Your task to perform on an android device: Open Google Maps and go to "Timeline" Image 0: 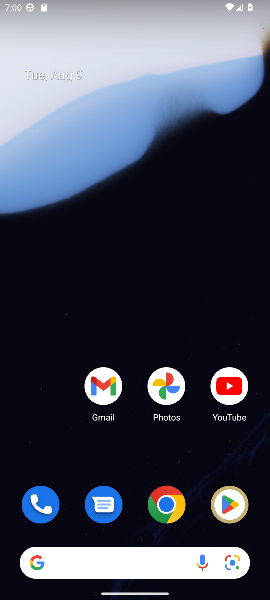
Step 0: press home button
Your task to perform on an android device: Open Google Maps and go to "Timeline" Image 1: 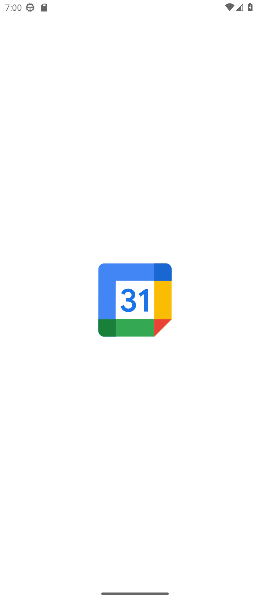
Step 1: press home button
Your task to perform on an android device: Open Google Maps and go to "Timeline" Image 2: 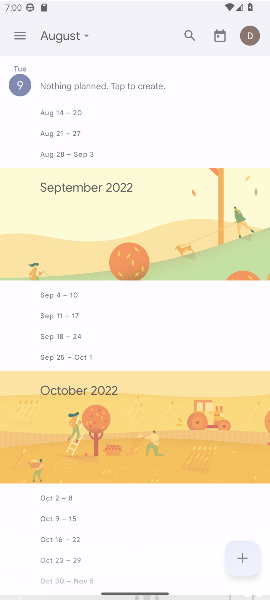
Step 2: press home button
Your task to perform on an android device: Open Google Maps and go to "Timeline" Image 3: 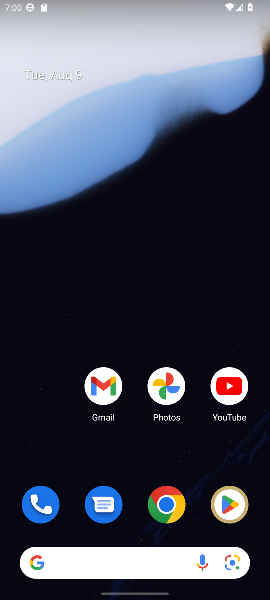
Step 3: press home button
Your task to perform on an android device: Open Google Maps and go to "Timeline" Image 4: 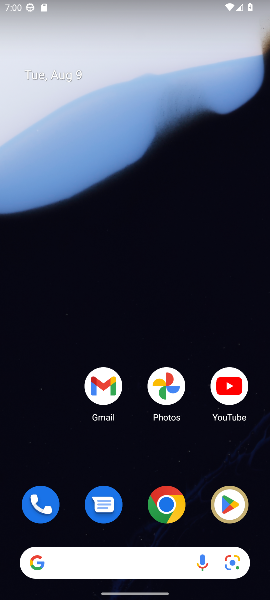
Step 4: press home button
Your task to perform on an android device: Open Google Maps and go to "Timeline" Image 5: 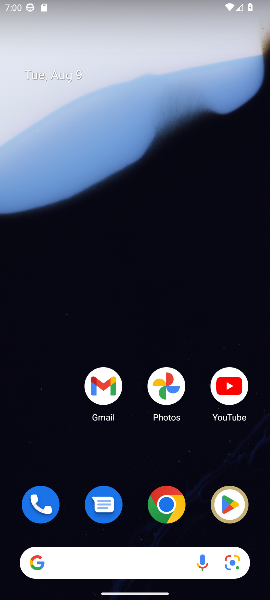
Step 5: drag from (161, 438) to (75, 13)
Your task to perform on an android device: Open Google Maps and go to "Timeline" Image 6: 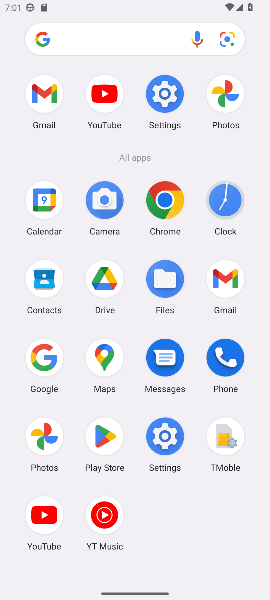
Step 6: click (114, 350)
Your task to perform on an android device: Open Google Maps and go to "Timeline" Image 7: 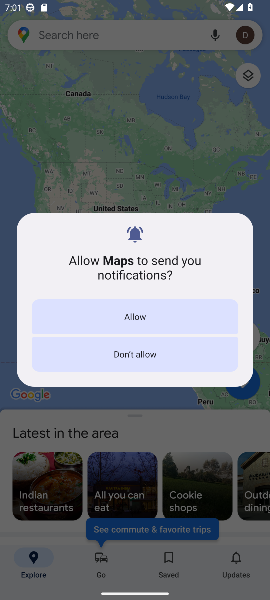
Step 7: click (186, 308)
Your task to perform on an android device: Open Google Maps and go to "Timeline" Image 8: 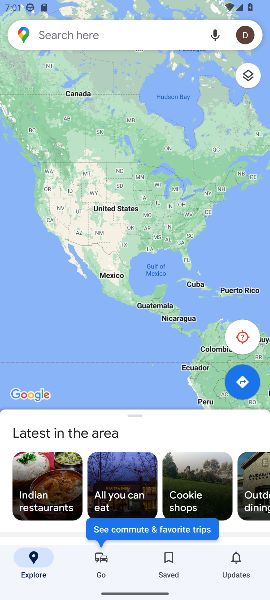
Step 8: click (241, 46)
Your task to perform on an android device: Open Google Maps and go to "Timeline" Image 9: 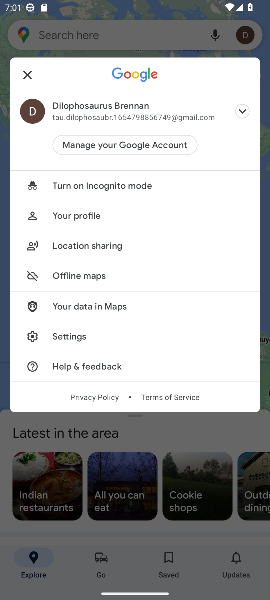
Step 9: click (65, 205)
Your task to perform on an android device: Open Google Maps and go to "Timeline" Image 10: 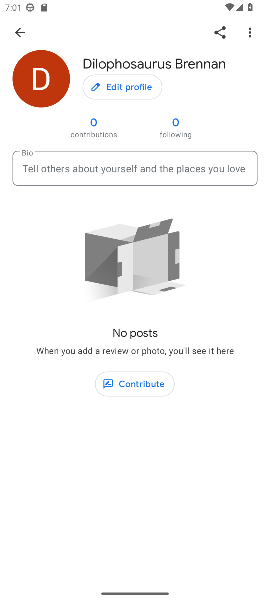
Step 10: press back button
Your task to perform on an android device: Open Google Maps and go to "Timeline" Image 11: 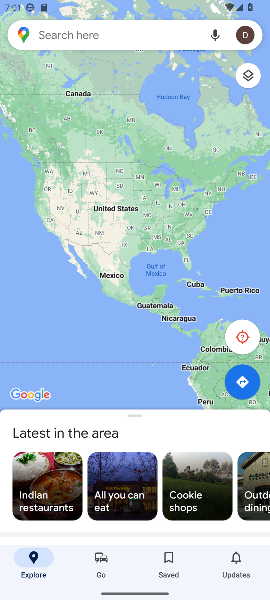
Step 11: click (240, 29)
Your task to perform on an android device: Open Google Maps and go to "Timeline" Image 12: 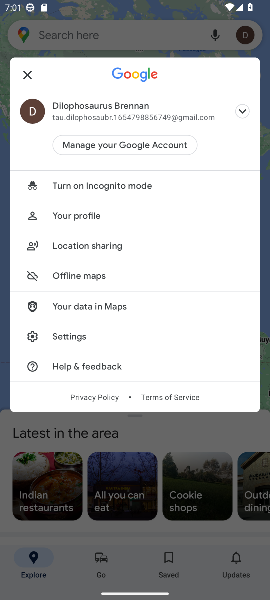
Step 12: click (49, 339)
Your task to perform on an android device: Open Google Maps and go to "Timeline" Image 13: 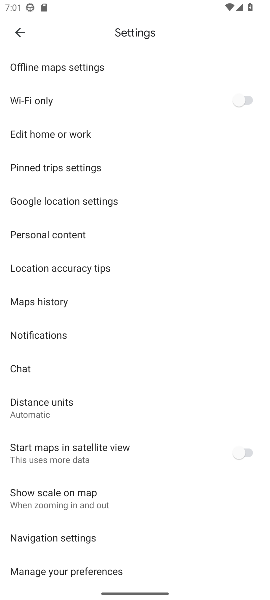
Step 13: task complete